Your task to perform on an android device: Open Youtube and go to "Your channel" Image 0: 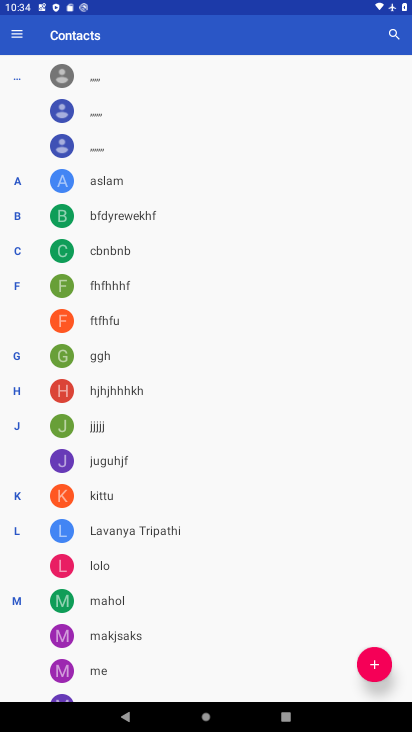
Step 0: press home button
Your task to perform on an android device: Open Youtube and go to "Your channel" Image 1: 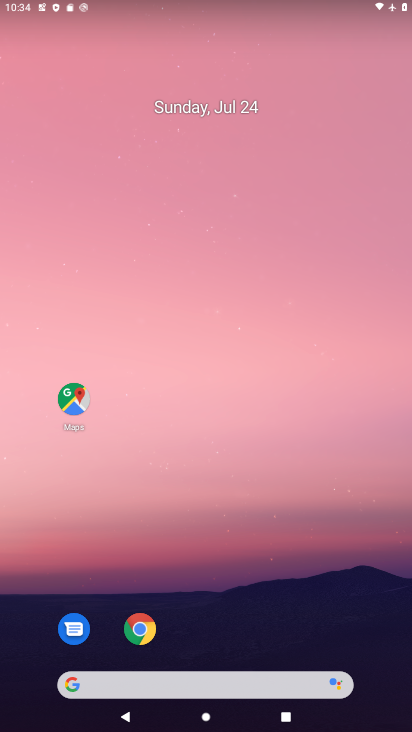
Step 1: drag from (246, 659) to (215, 56)
Your task to perform on an android device: Open Youtube and go to "Your channel" Image 2: 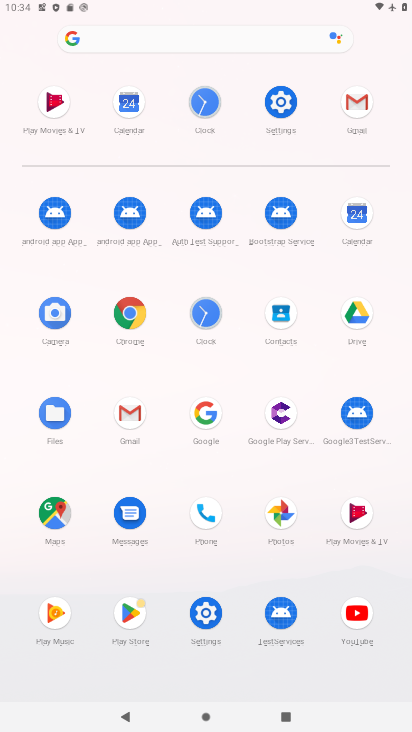
Step 2: click (374, 632)
Your task to perform on an android device: Open Youtube and go to "Your channel" Image 3: 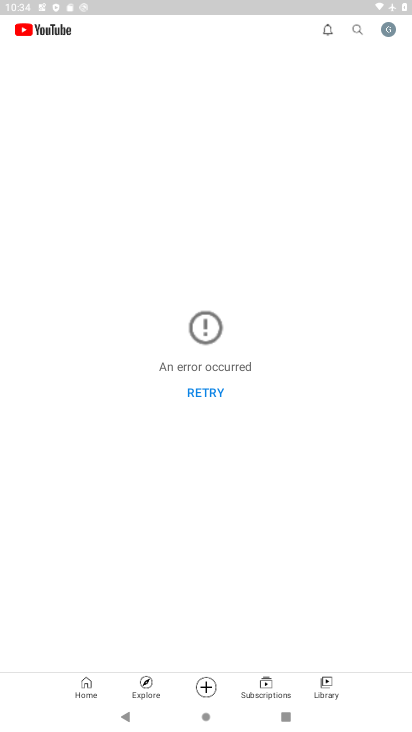
Step 3: click (199, 389)
Your task to perform on an android device: Open Youtube and go to "Your channel" Image 4: 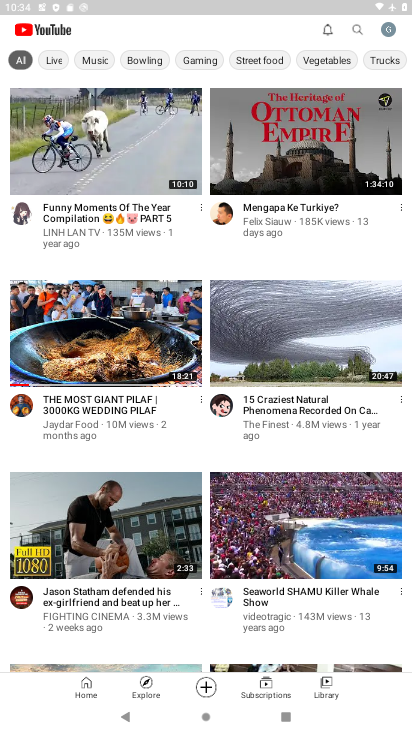
Step 4: click (392, 32)
Your task to perform on an android device: Open Youtube and go to "Your channel" Image 5: 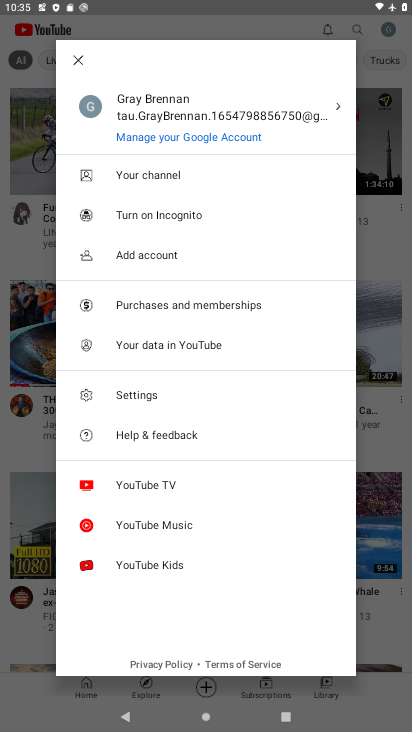
Step 5: click (167, 183)
Your task to perform on an android device: Open Youtube and go to "Your channel" Image 6: 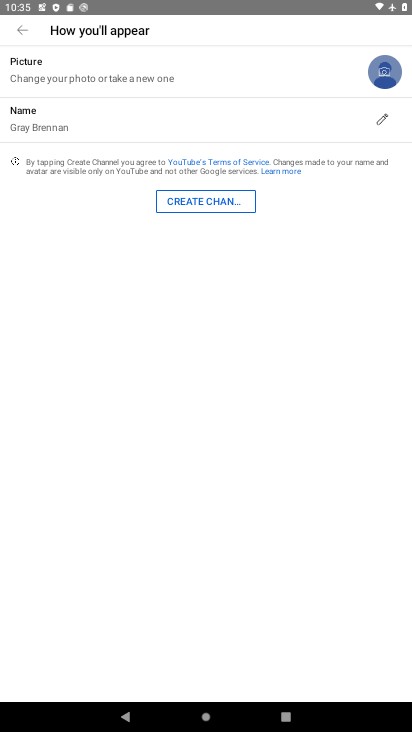
Step 6: task complete